Your task to perform on an android device: turn pop-ups on in chrome Image 0: 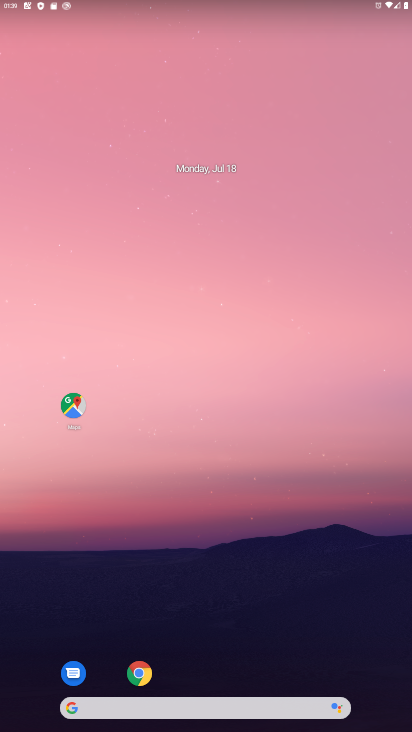
Step 0: click (138, 676)
Your task to perform on an android device: turn pop-ups on in chrome Image 1: 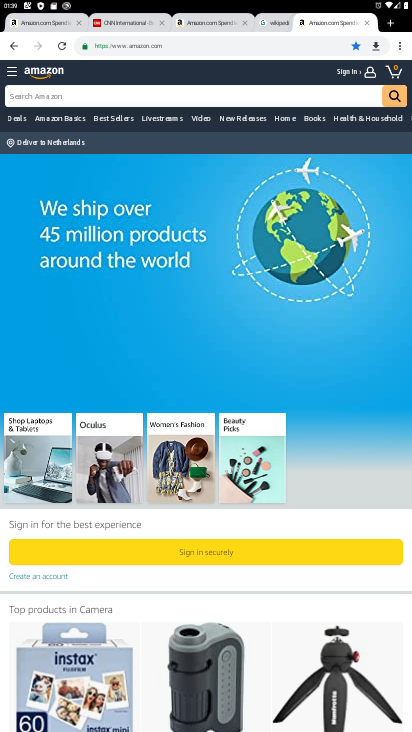
Step 1: click (394, 43)
Your task to perform on an android device: turn pop-ups on in chrome Image 2: 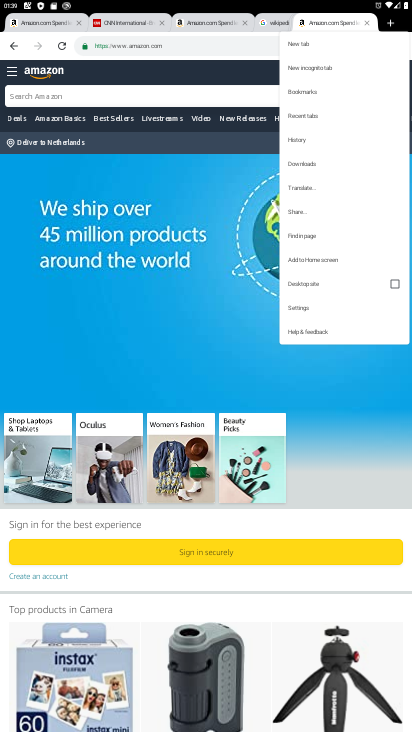
Step 2: click (310, 311)
Your task to perform on an android device: turn pop-ups on in chrome Image 3: 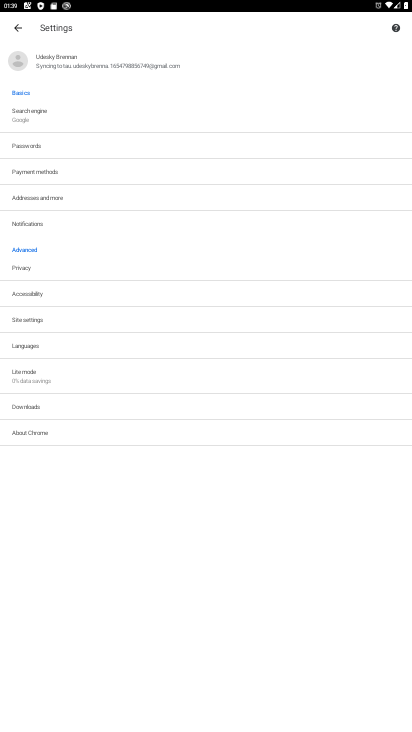
Step 3: click (83, 317)
Your task to perform on an android device: turn pop-ups on in chrome Image 4: 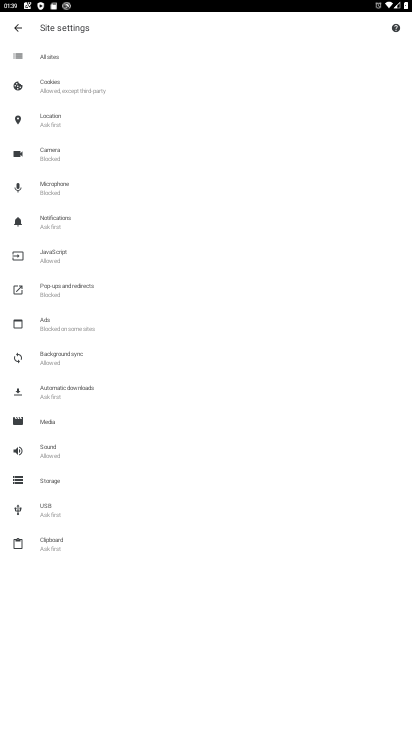
Step 4: click (80, 300)
Your task to perform on an android device: turn pop-ups on in chrome Image 5: 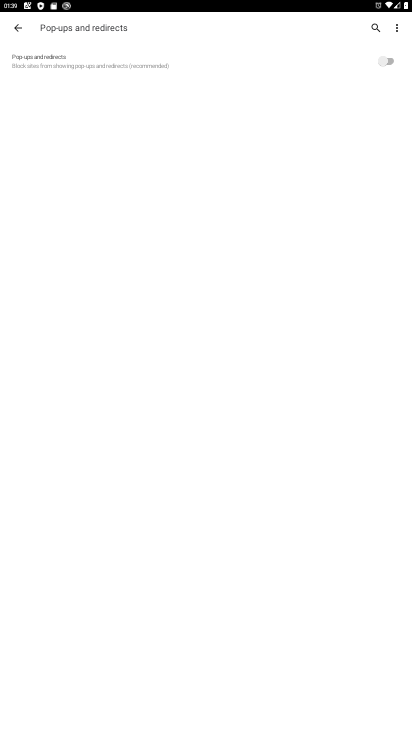
Step 5: task complete